Your task to perform on an android device: Go to Android settings Image 0: 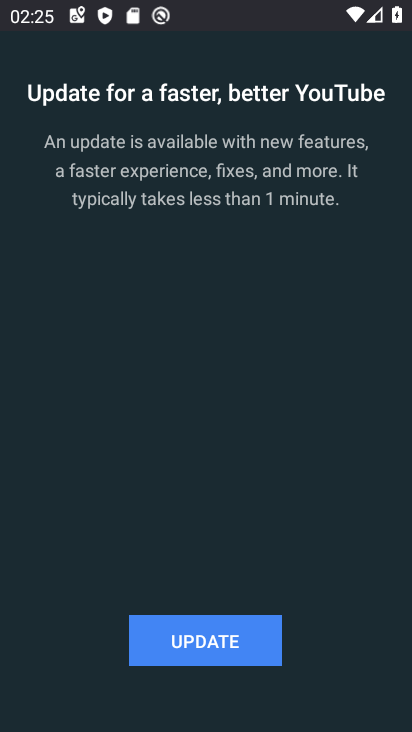
Step 0: press home button
Your task to perform on an android device: Go to Android settings Image 1: 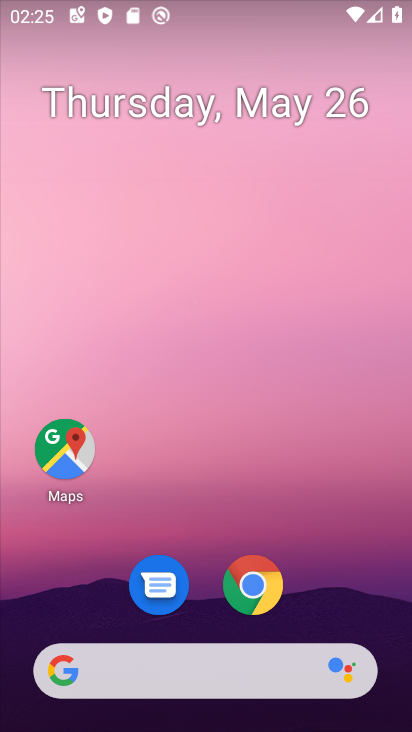
Step 1: drag from (179, 500) to (197, 27)
Your task to perform on an android device: Go to Android settings Image 2: 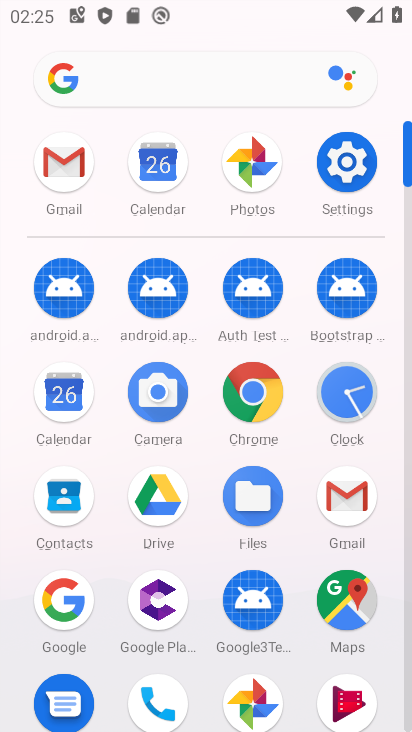
Step 2: click (331, 160)
Your task to perform on an android device: Go to Android settings Image 3: 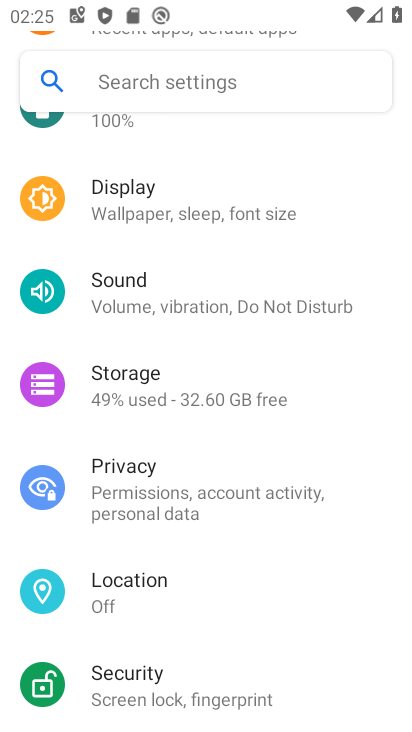
Step 3: drag from (240, 593) to (225, 1)
Your task to perform on an android device: Go to Android settings Image 4: 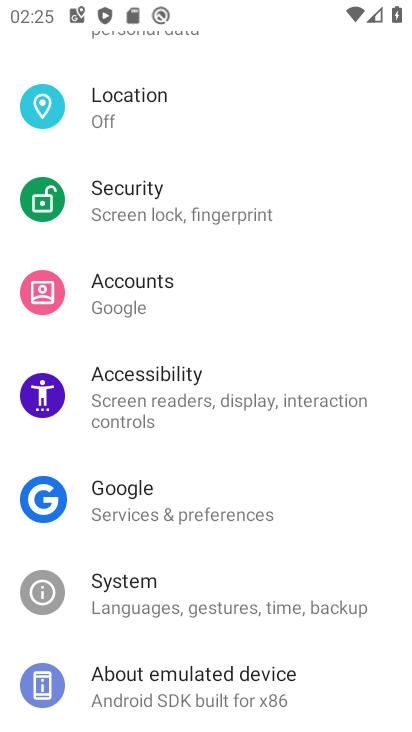
Step 4: click (157, 680)
Your task to perform on an android device: Go to Android settings Image 5: 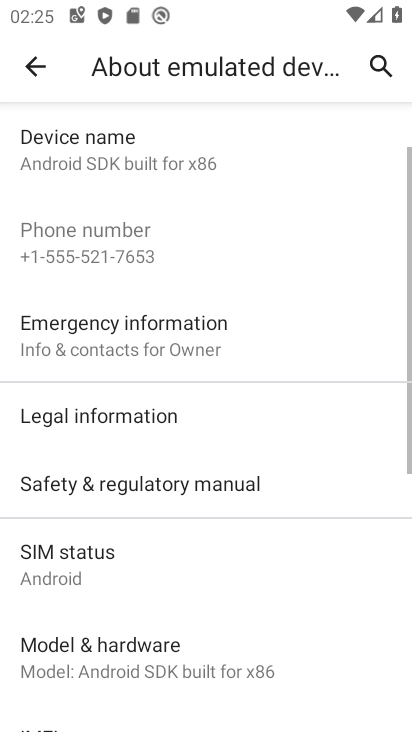
Step 5: task complete